Your task to perform on an android device: Go to Reddit.com Image 0: 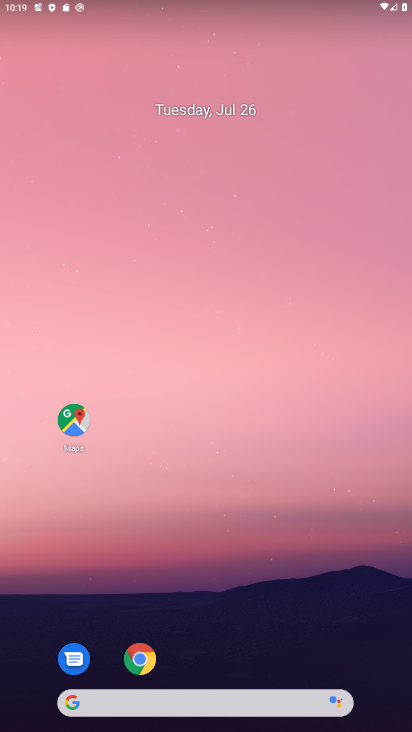
Step 0: press home button
Your task to perform on an android device: Go to Reddit.com Image 1: 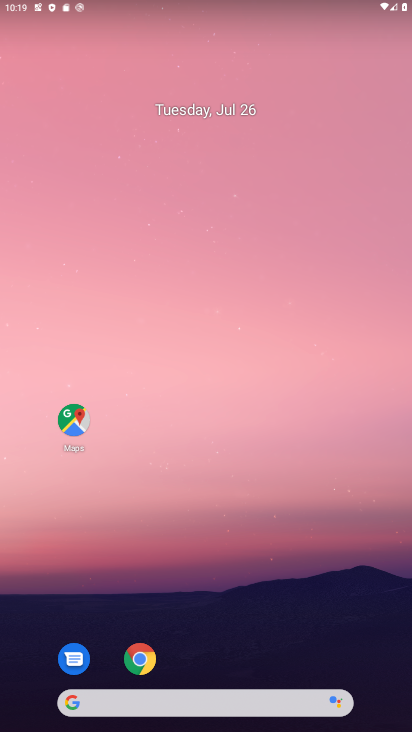
Step 1: drag from (270, 648) to (359, 103)
Your task to perform on an android device: Go to Reddit.com Image 2: 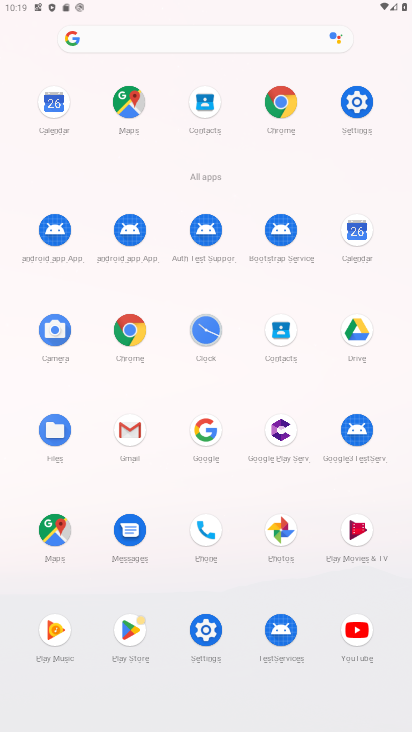
Step 2: click (132, 324)
Your task to perform on an android device: Go to Reddit.com Image 3: 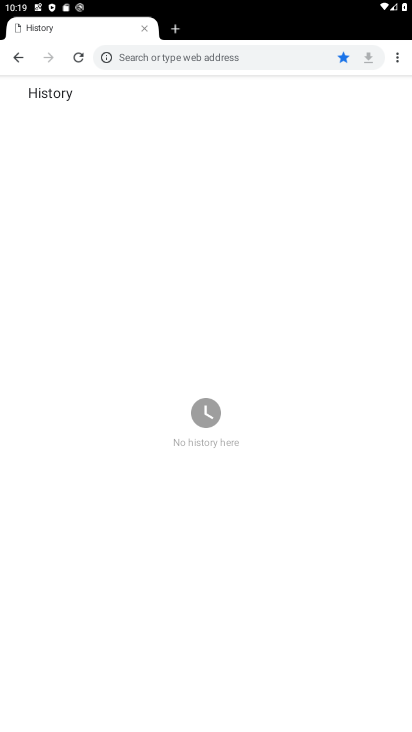
Step 3: click (254, 57)
Your task to perform on an android device: Go to Reddit.com Image 4: 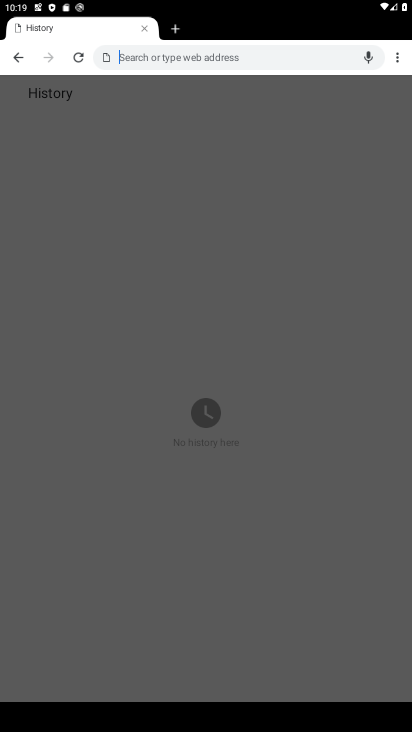
Step 4: type " Reddit.com"
Your task to perform on an android device: Go to Reddit.com Image 5: 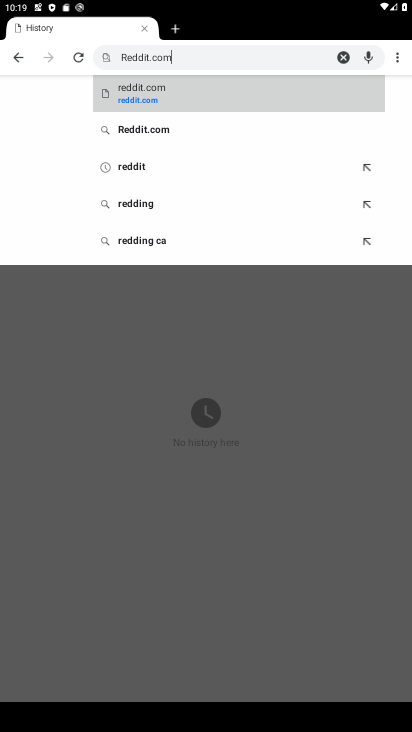
Step 5: type ""
Your task to perform on an android device: Go to Reddit.com Image 6: 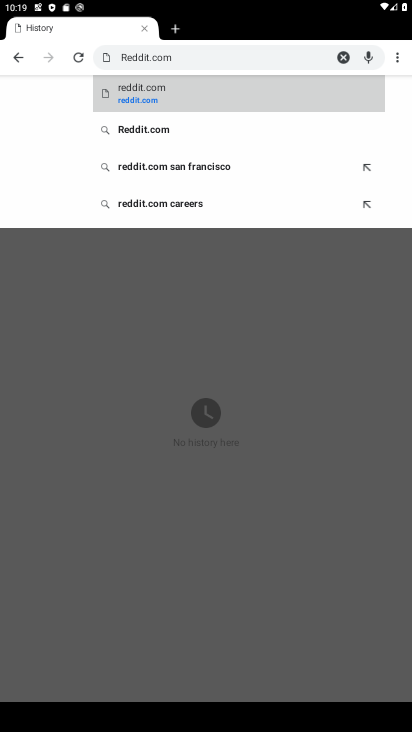
Step 6: click (150, 81)
Your task to perform on an android device: Go to Reddit.com Image 7: 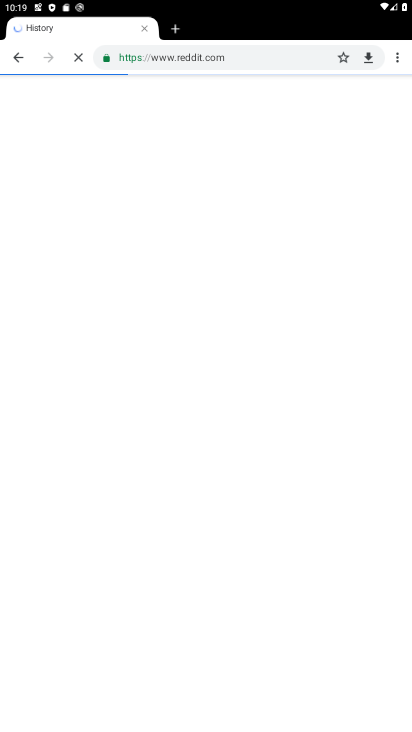
Step 7: task complete